Your task to perform on an android device: snooze an email in the gmail app Image 0: 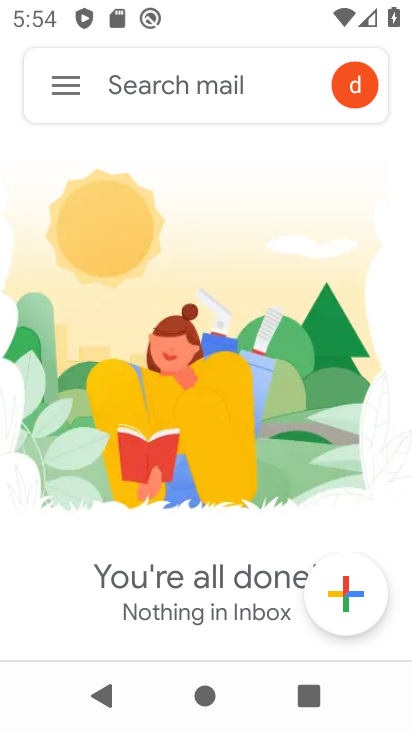
Step 0: click (65, 75)
Your task to perform on an android device: snooze an email in the gmail app Image 1: 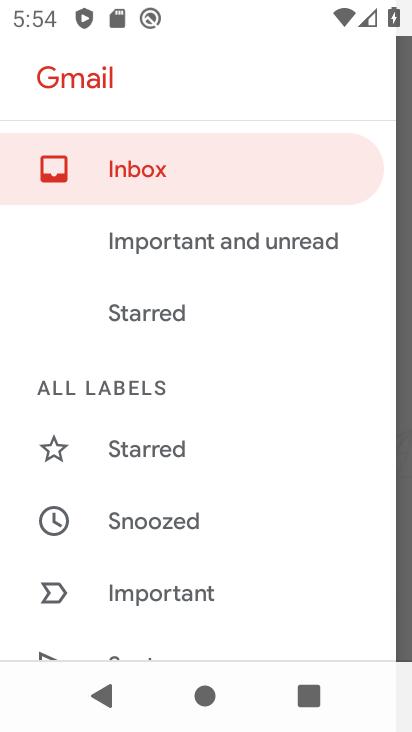
Step 1: task complete